Your task to perform on an android device: Open calendar and show me the third week of next month Image 0: 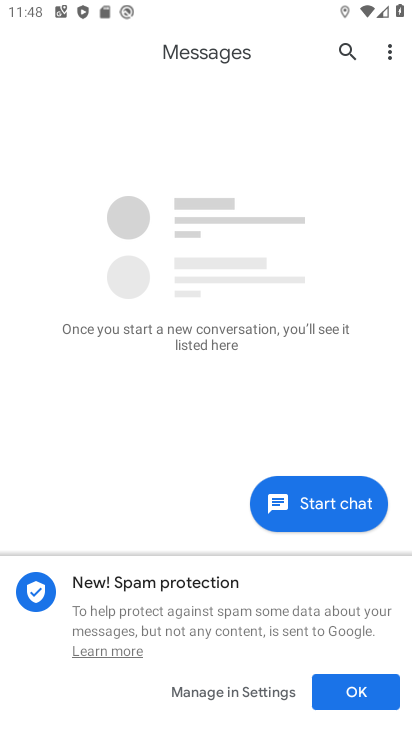
Step 0: drag from (230, 607) to (218, 370)
Your task to perform on an android device: Open calendar and show me the third week of next month Image 1: 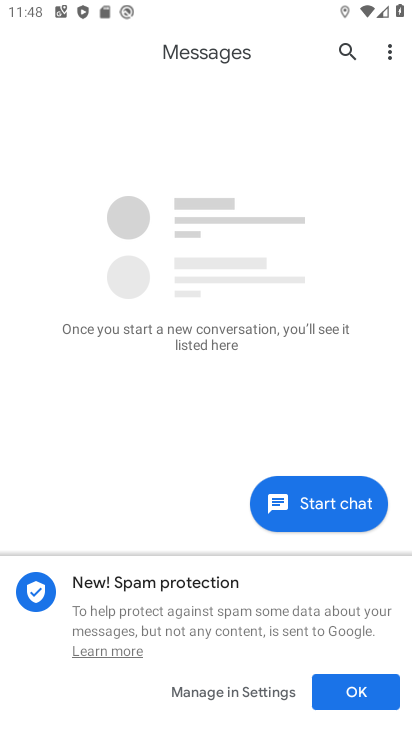
Step 1: press home button
Your task to perform on an android device: Open calendar and show me the third week of next month Image 2: 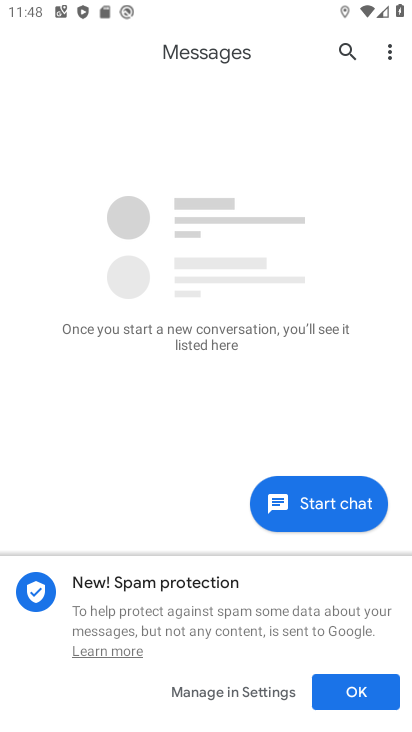
Step 2: press home button
Your task to perform on an android device: Open calendar and show me the third week of next month Image 3: 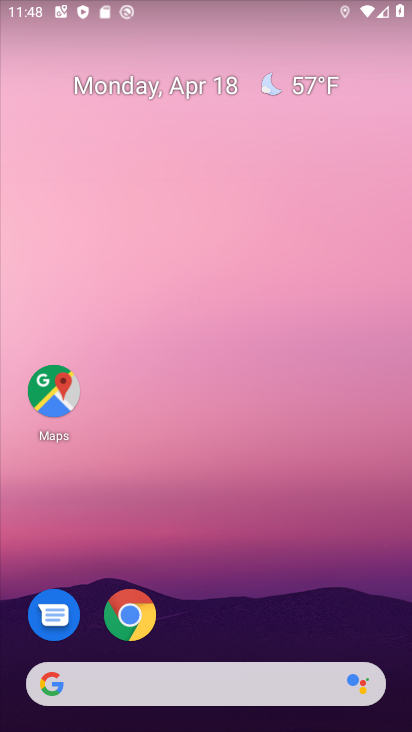
Step 3: press home button
Your task to perform on an android device: Open calendar and show me the third week of next month Image 4: 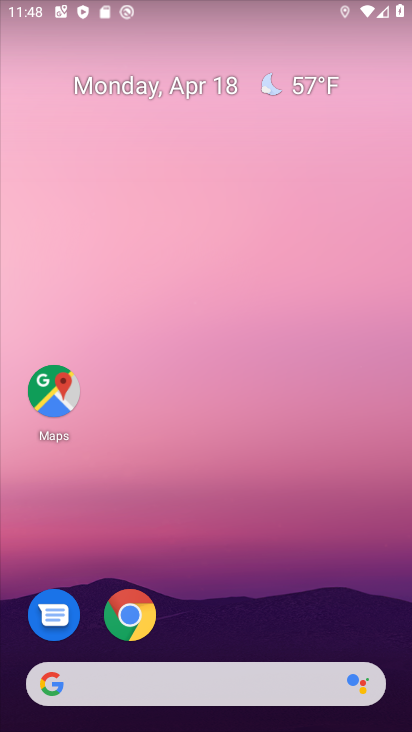
Step 4: drag from (207, 621) to (216, 157)
Your task to perform on an android device: Open calendar and show me the third week of next month Image 5: 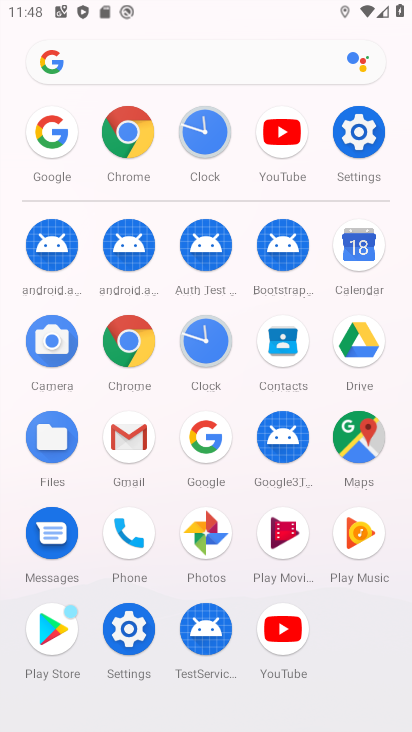
Step 5: click (353, 260)
Your task to perform on an android device: Open calendar and show me the third week of next month Image 6: 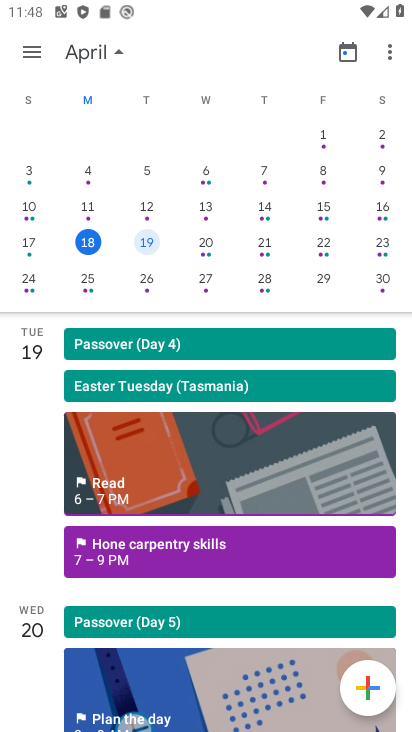
Step 6: drag from (346, 220) to (8, 166)
Your task to perform on an android device: Open calendar and show me the third week of next month Image 7: 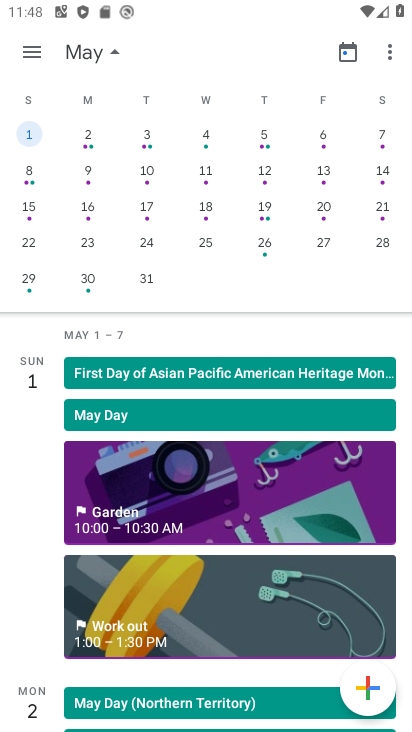
Step 7: click (92, 204)
Your task to perform on an android device: Open calendar and show me the third week of next month Image 8: 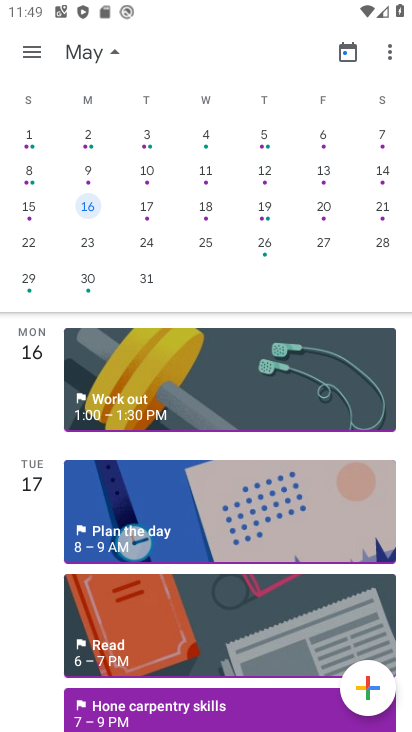
Step 8: task complete